Your task to perform on an android device: open wifi settings Image 0: 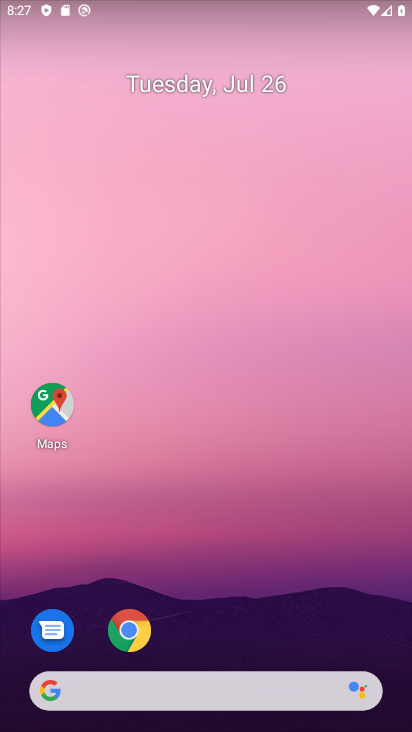
Step 0: drag from (262, 512) to (223, 37)
Your task to perform on an android device: open wifi settings Image 1: 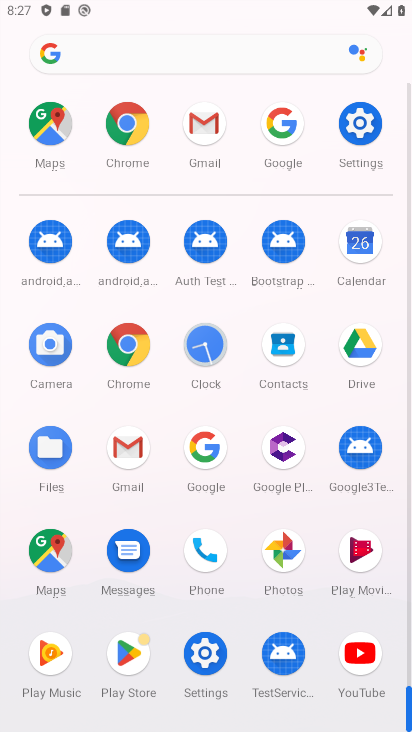
Step 1: click (357, 125)
Your task to perform on an android device: open wifi settings Image 2: 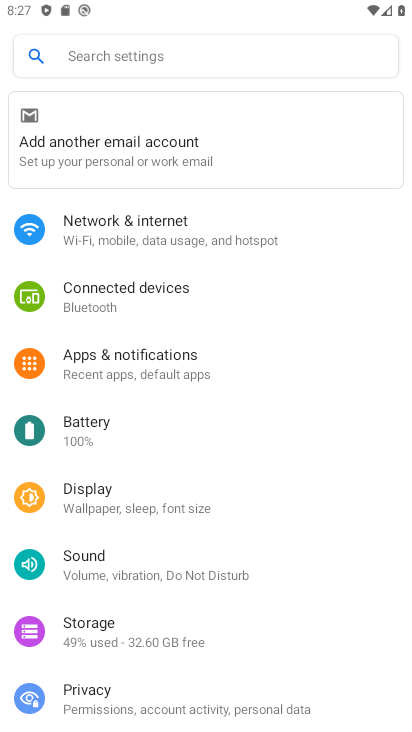
Step 2: click (141, 221)
Your task to perform on an android device: open wifi settings Image 3: 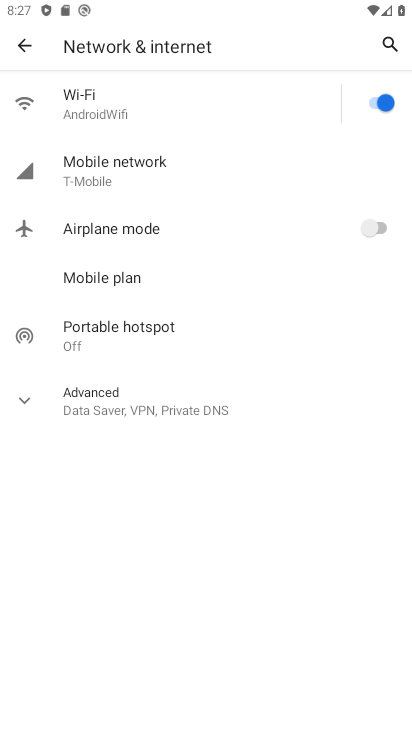
Step 3: click (136, 114)
Your task to perform on an android device: open wifi settings Image 4: 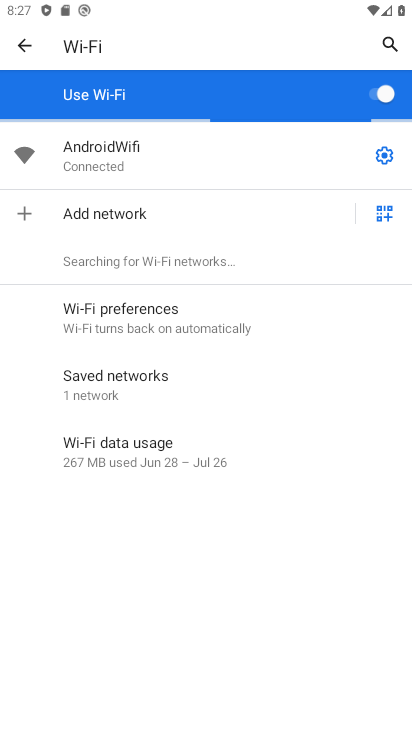
Step 4: task complete